Your task to perform on an android device: empty trash in google photos Image 0: 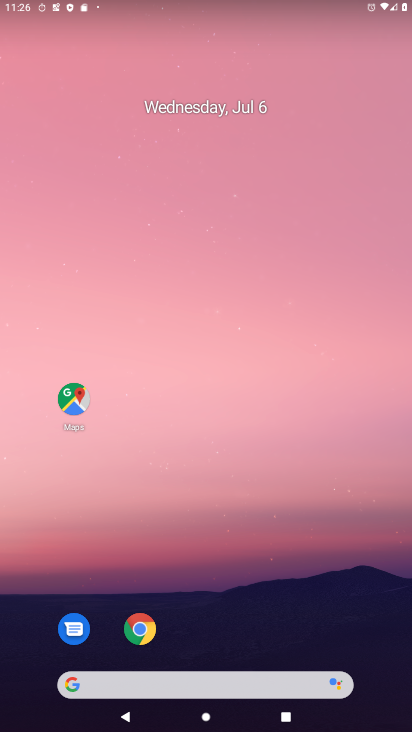
Step 0: drag from (208, 615) to (188, 119)
Your task to perform on an android device: empty trash in google photos Image 1: 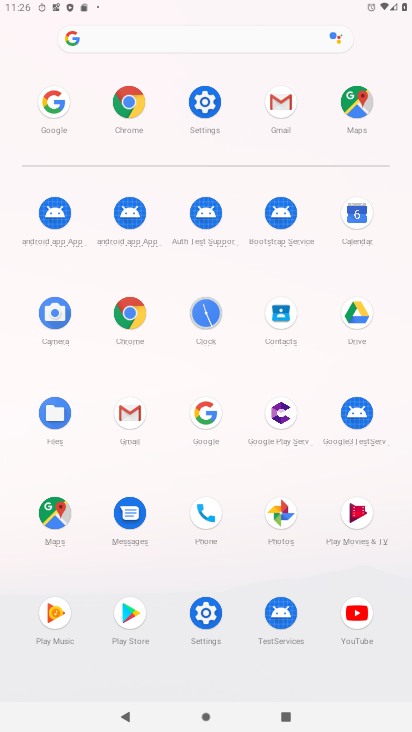
Step 1: click (278, 511)
Your task to perform on an android device: empty trash in google photos Image 2: 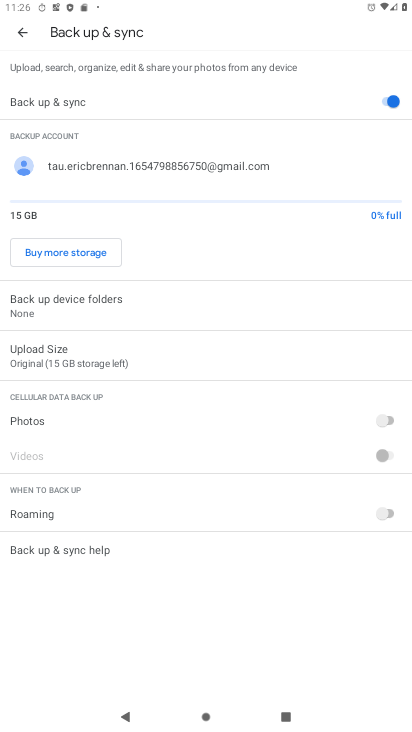
Step 2: press back button
Your task to perform on an android device: empty trash in google photos Image 3: 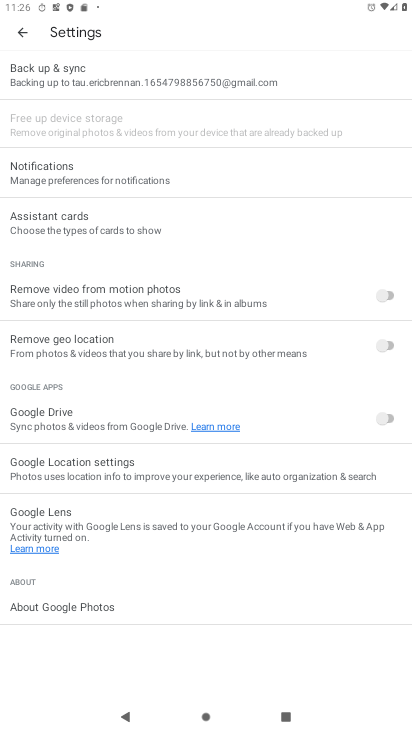
Step 3: press back button
Your task to perform on an android device: empty trash in google photos Image 4: 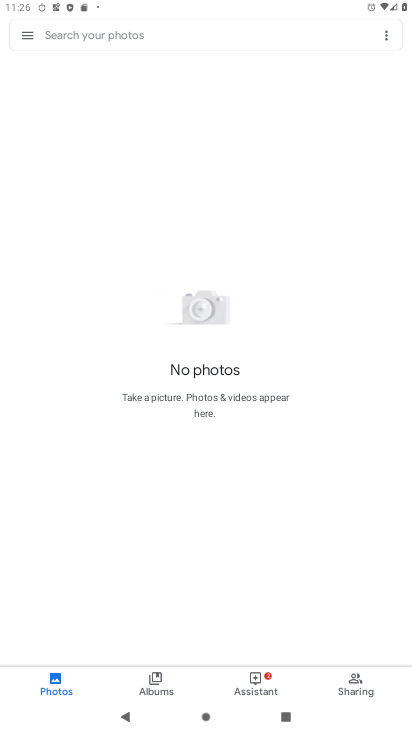
Step 4: click (22, 31)
Your task to perform on an android device: empty trash in google photos Image 5: 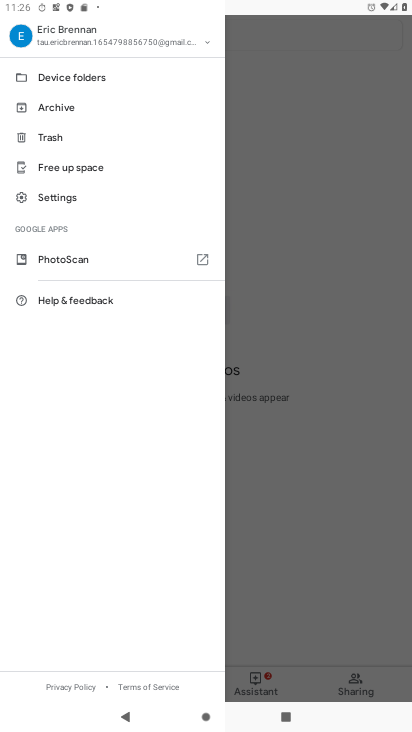
Step 5: click (68, 142)
Your task to perform on an android device: empty trash in google photos Image 6: 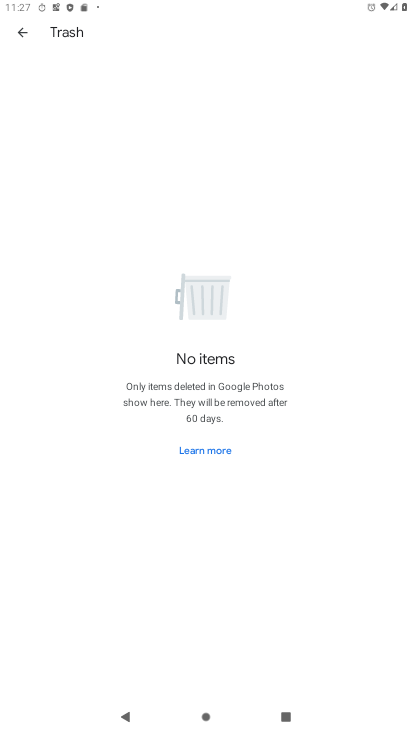
Step 6: task complete